Your task to perform on an android device: Clear the shopping cart on newegg.com. Image 0: 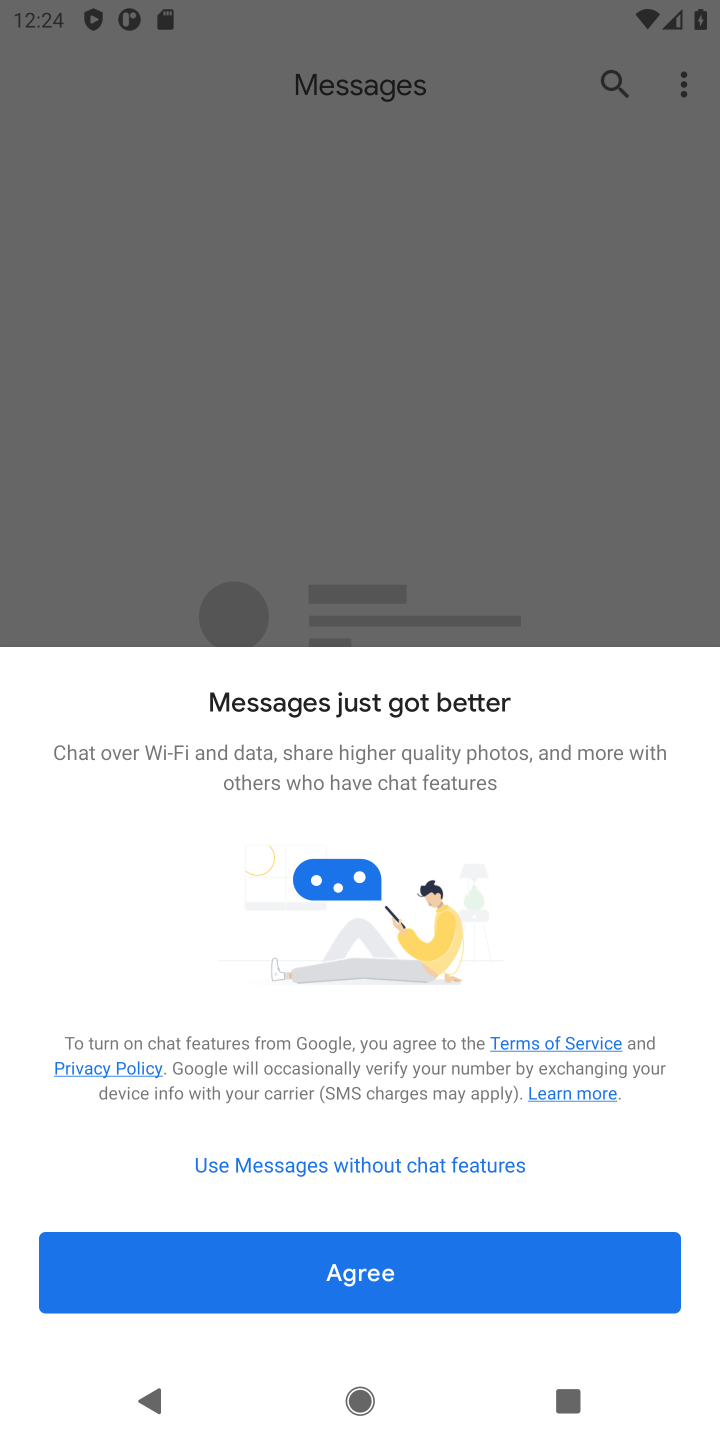
Step 0: press home button
Your task to perform on an android device: Clear the shopping cart on newegg.com. Image 1: 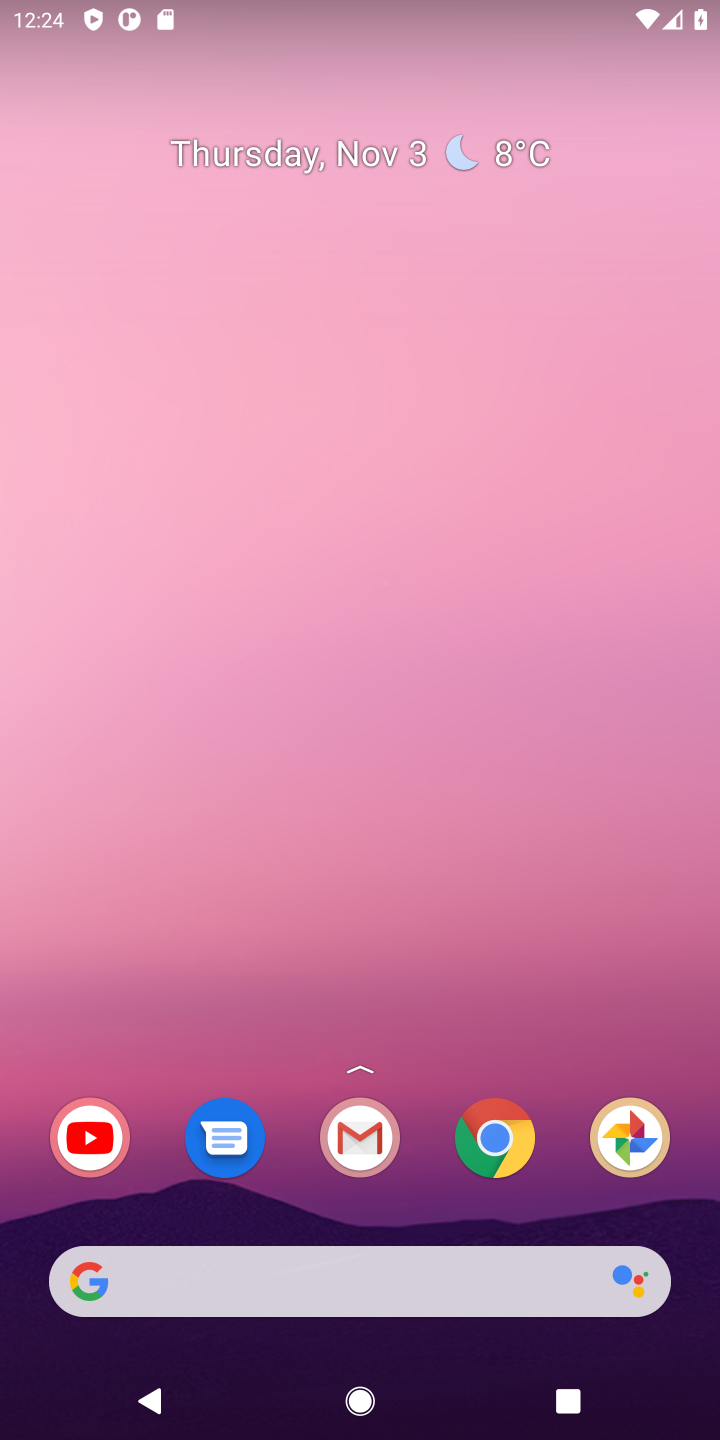
Step 1: click (490, 1190)
Your task to perform on an android device: Clear the shopping cart on newegg.com. Image 2: 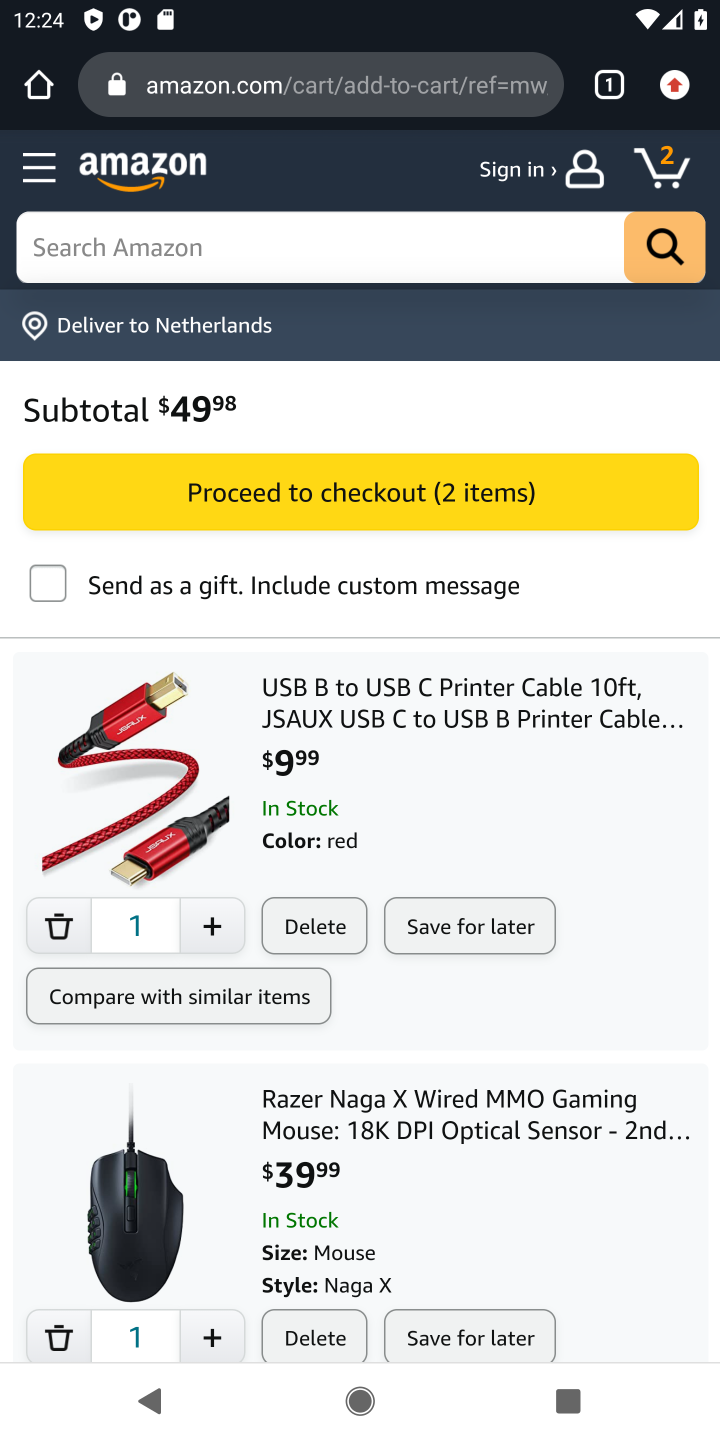
Step 2: click (225, 104)
Your task to perform on an android device: Clear the shopping cart on newegg.com. Image 3: 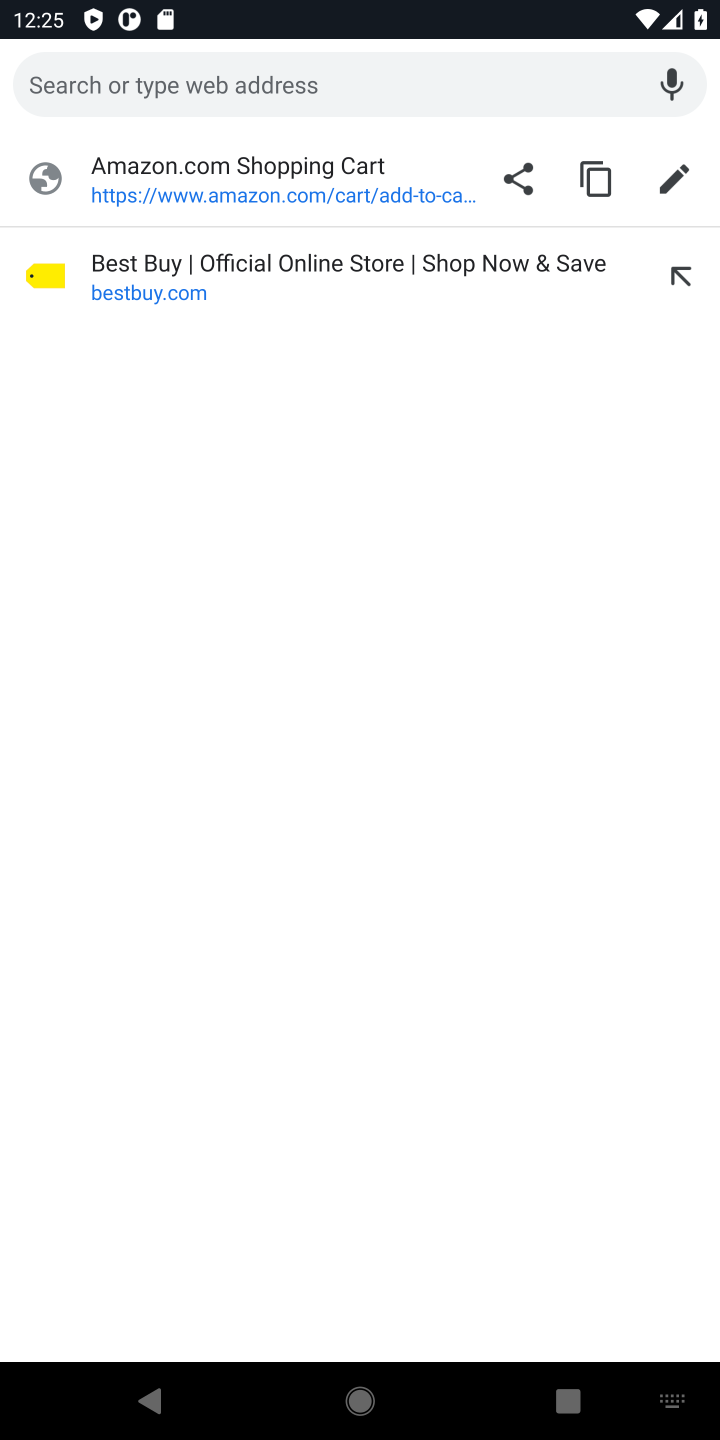
Step 3: type "newegg"
Your task to perform on an android device: Clear the shopping cart on newegg.com. Image 4: 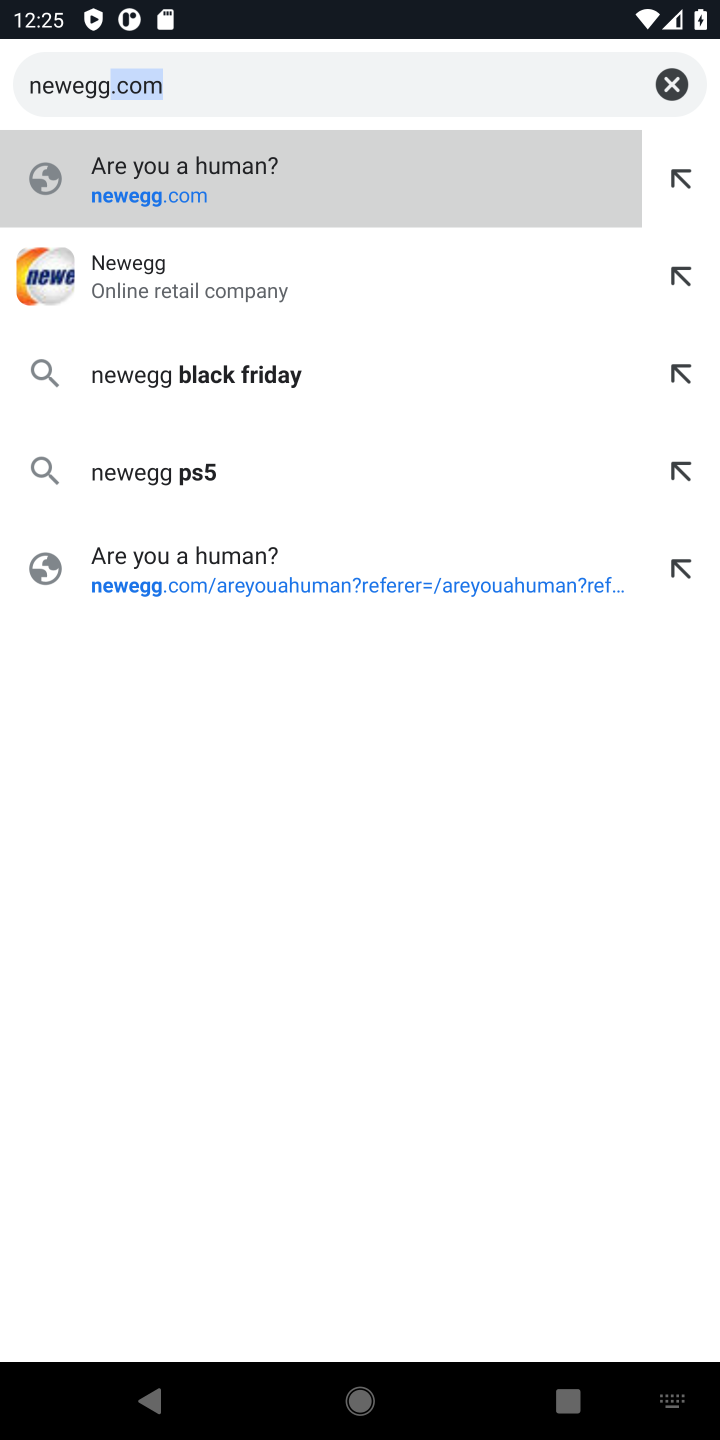
Step 4: click (127, 293)
Your task to perform on an android device: Clear the shopping cart on newegg.com. Image 5: 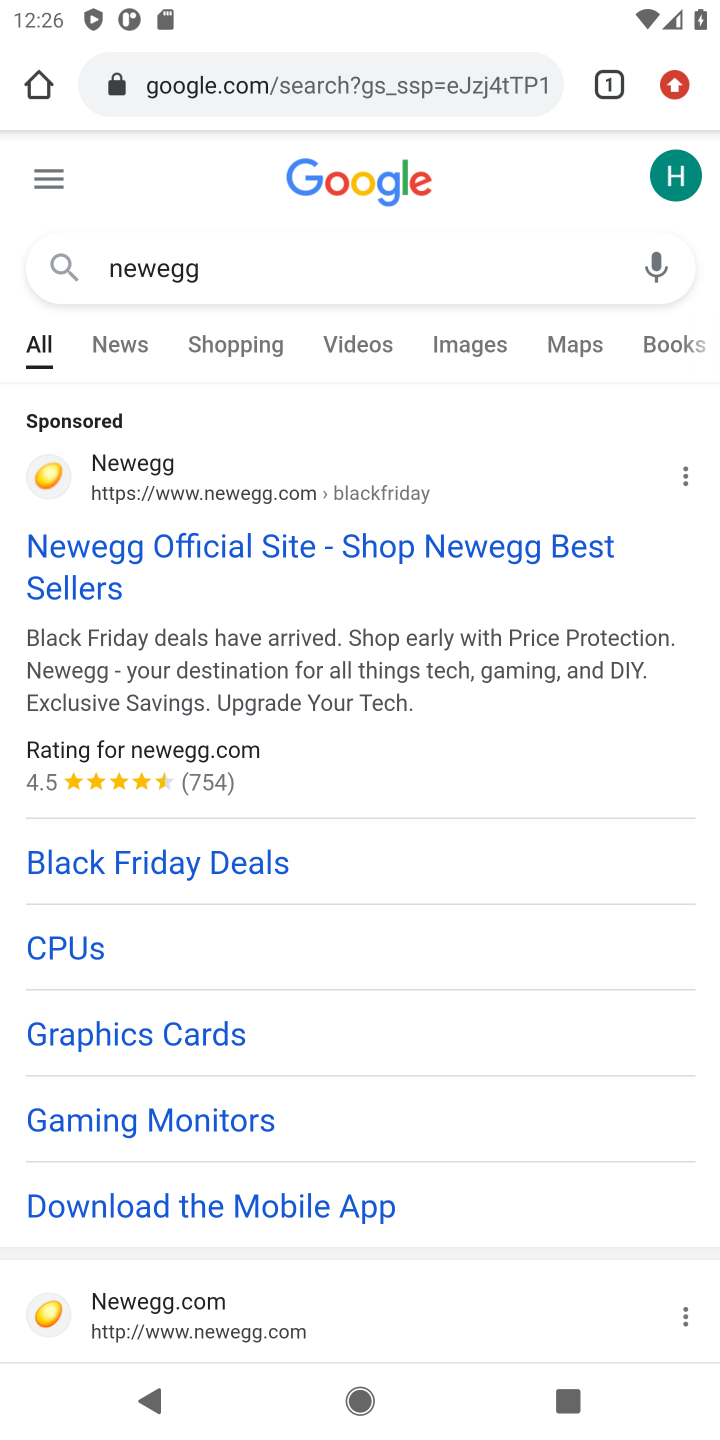
Step 5: click (52, 606)
Your task to perform on an android device: Clear the shopping cart on newegg.com. Image 6: 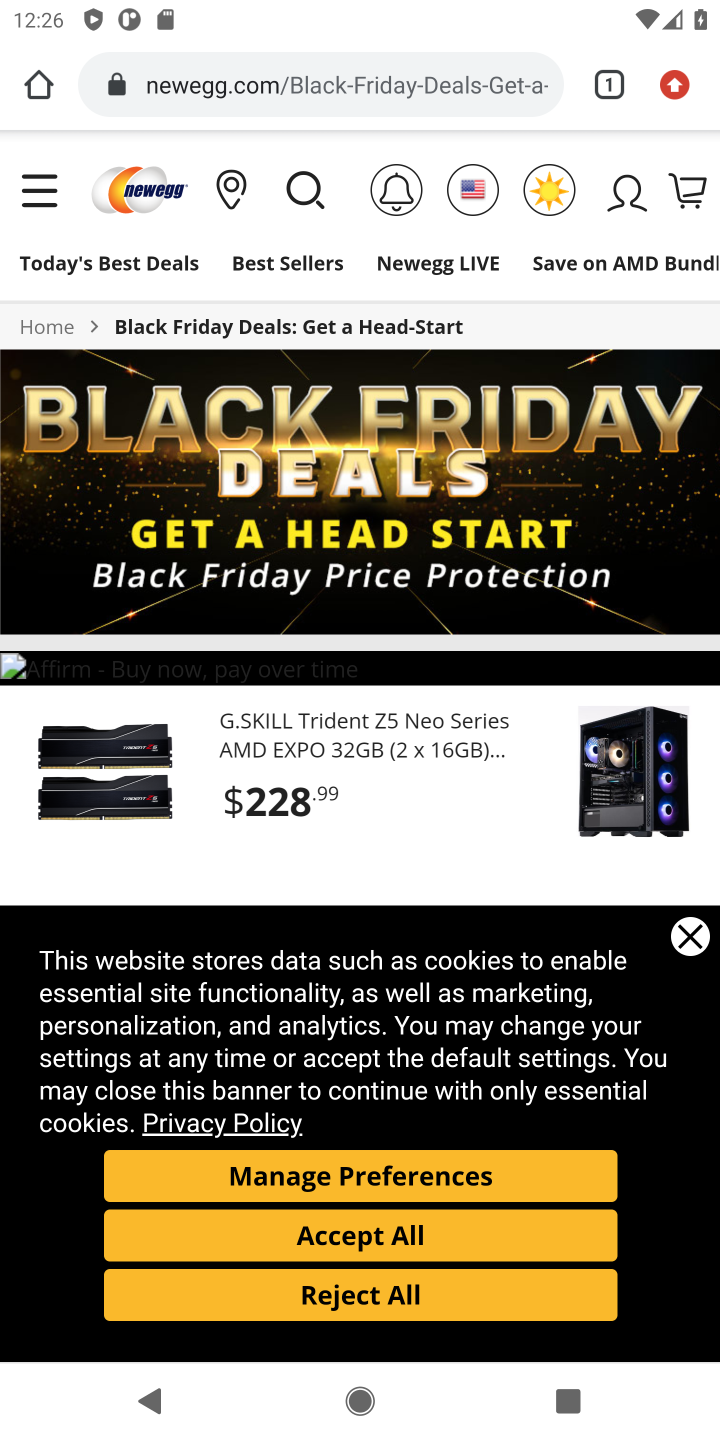
Step 6: click (673, 180)
Your task to perform on an android device: Clear the shopping cart on newegg.com. Image 7: 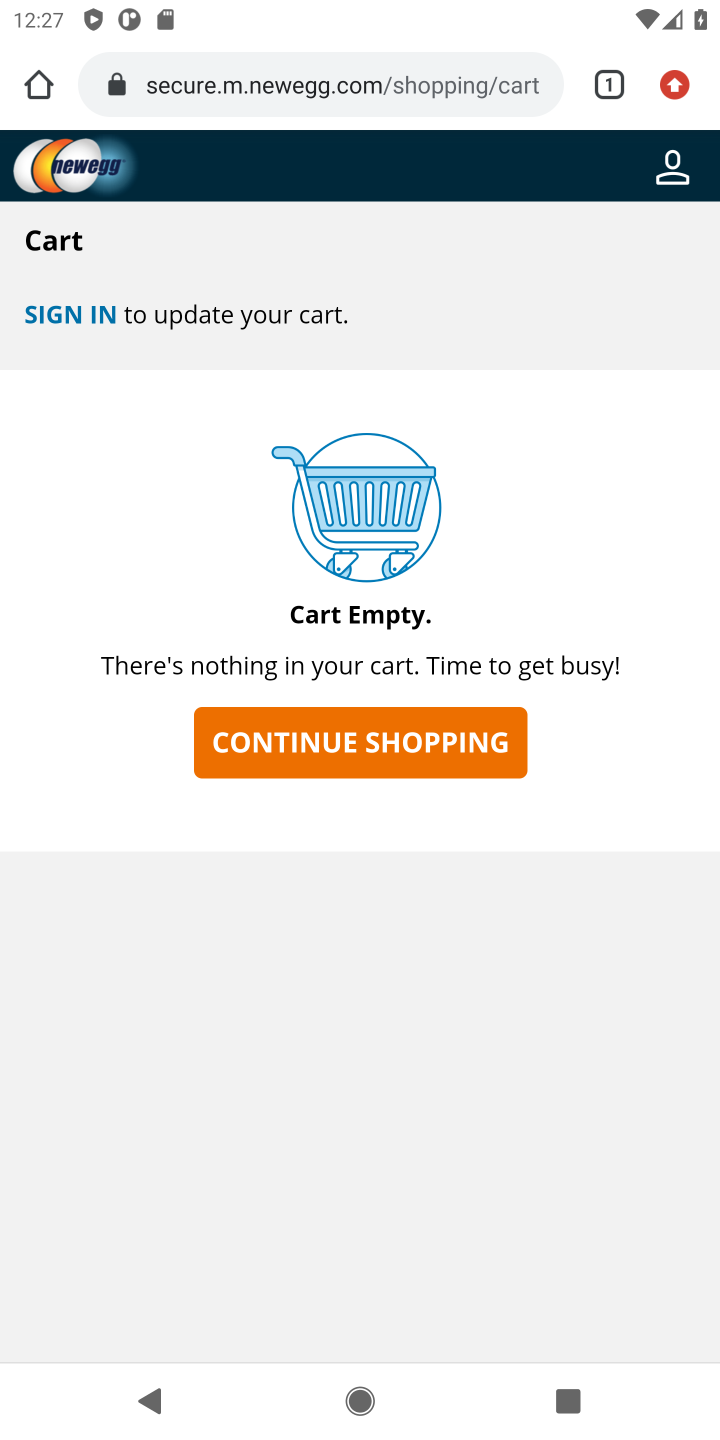
Step 7: task complete